Your task to perform on an android device: visit the assistant section in the google photos Image 0: 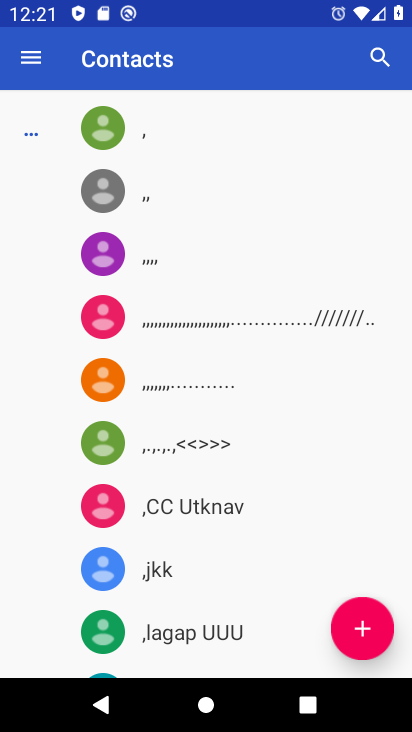
Step 0: press home button
Your task to perform on an android device: visit the assistant section in the google photos Image 1: 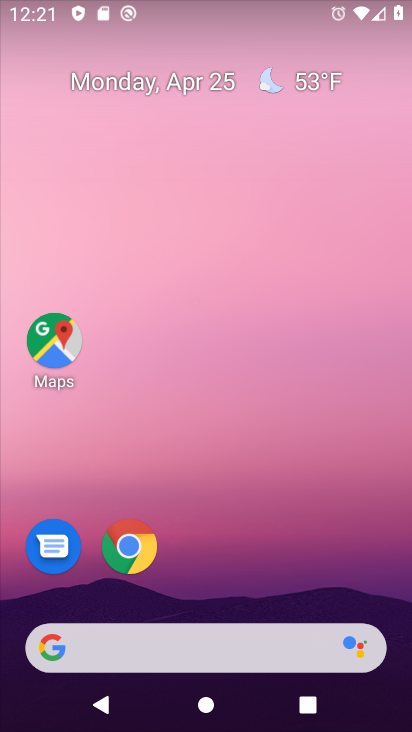
Step 1: drag from (243, 520) to (245, 170)
Your task to perform on an android device: visit the assistant section in the google photos Image 2: 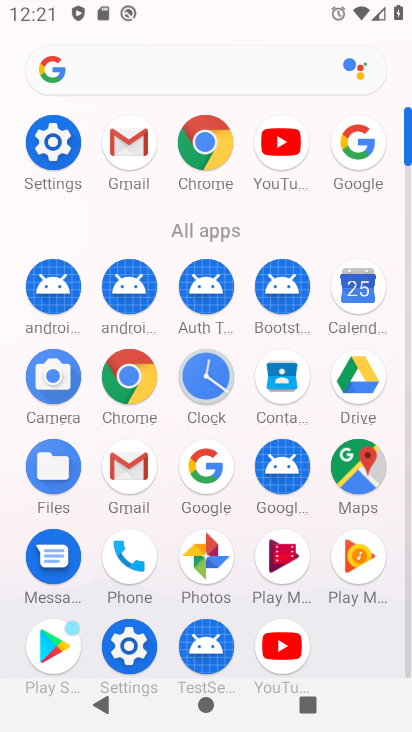
Step 2: click (218, 568)
Your task to perform on an android device: visit the assistant section in the google photos Image 3: 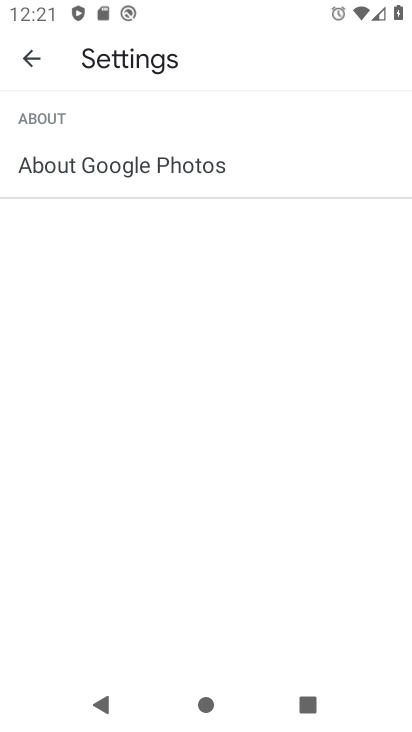
Step 3: click (34, 50)
Your task to perform on an android device: visit the assistant section in the google photos Image 4: 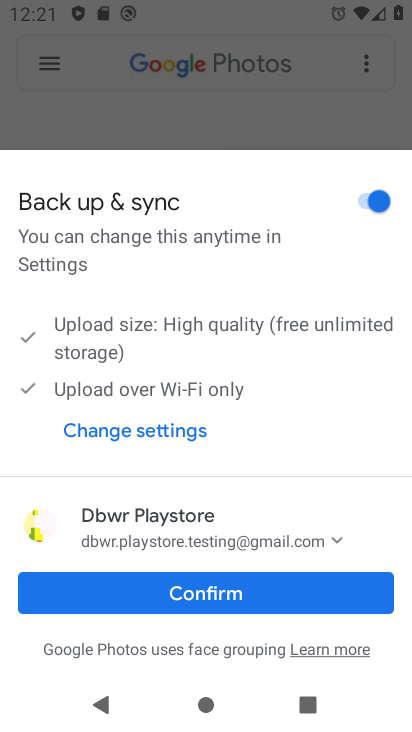
Step 4: click (232, 596)
Your task to perform on an android device: visit the assistant section in the google photos Image 5: 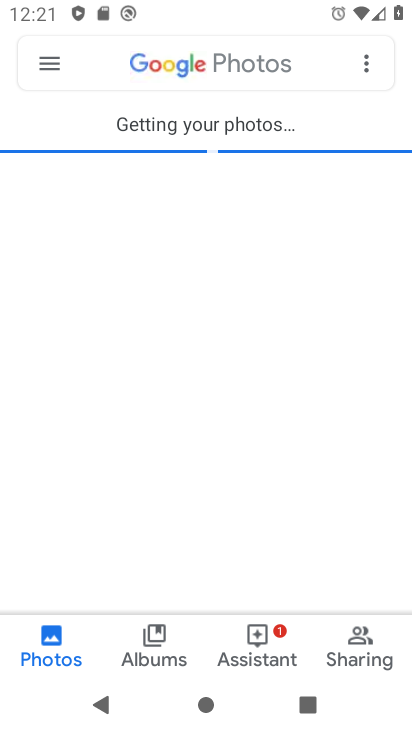
Step 5: click (262, 643)
Your task to perform on an android device: visit the assistant section in the google photos Image 6: 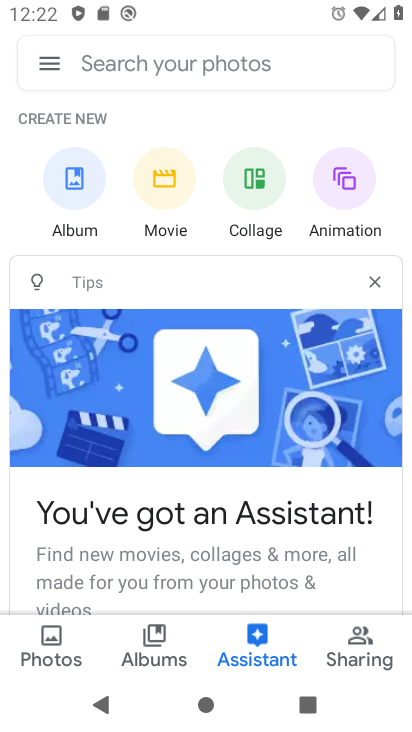
Step 6: task complete